Your task to perform on an android device: turn on airplane mode Image 0: 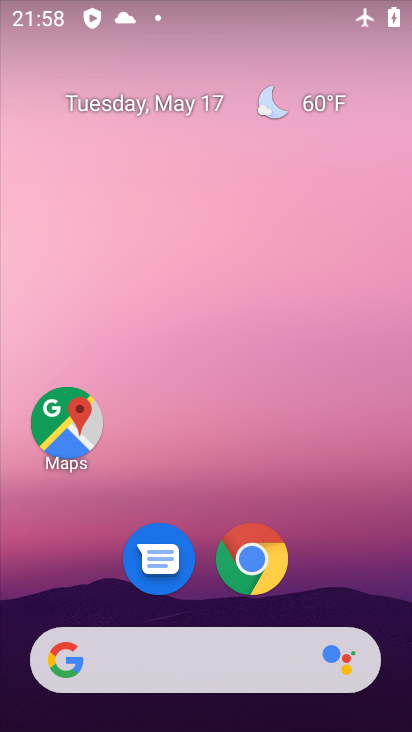
Step 0: drag from (243, 7) to (345, 505)
Your task to perform on an android device: turn on airplane mode Image 1: 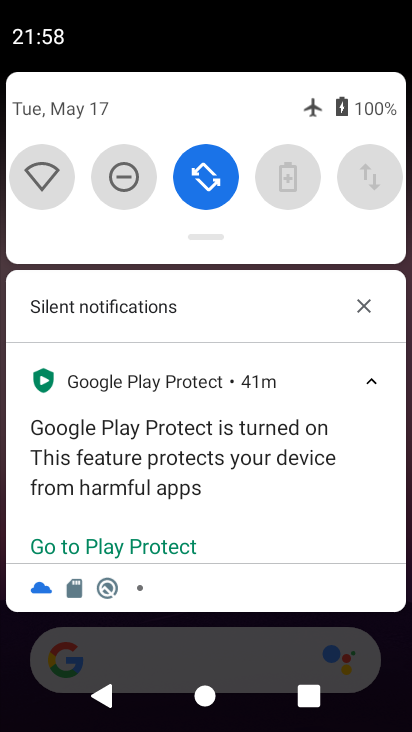
Step 1: task complete